Your task to perform on an android device: Open Yahoo.com Image 0: 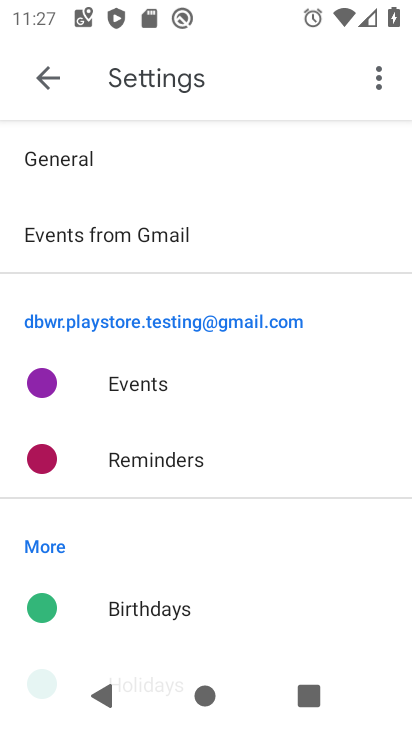
Step 0: press home button
Your task to perform on an android device: Open Yahoo.com Image 1: 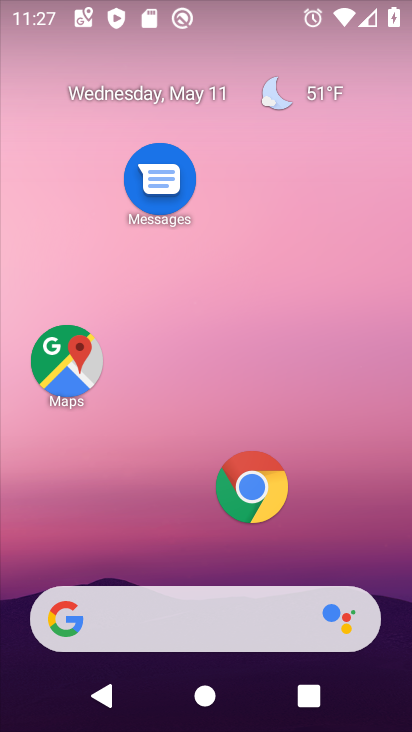
Step 1: click (243, 488)
Your task to perform on an android device: Open Yahoo.com Image 2: 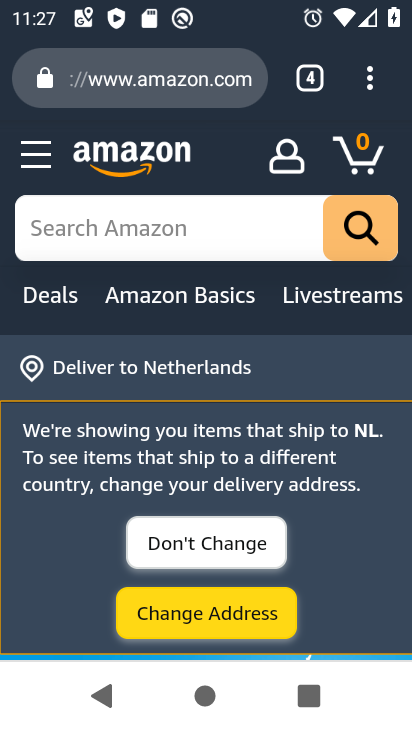
Step 2: click (309, 85)
Your task to perform on an android device: Open Yahoo.com Image 3: 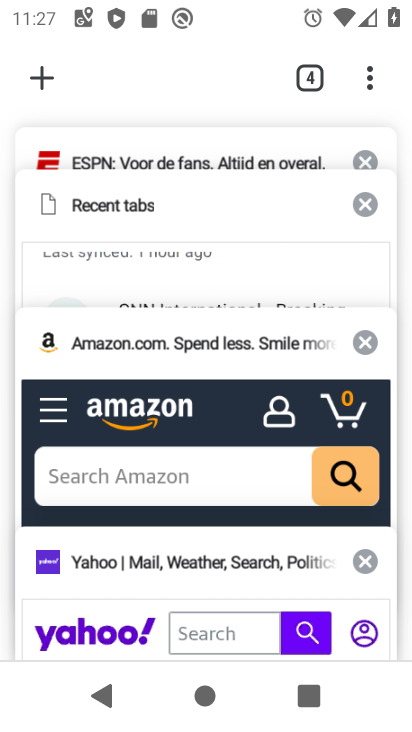
Step 3: click (150, 581)
Your task to perform on an android device: Open Yahoo.com Image 4: 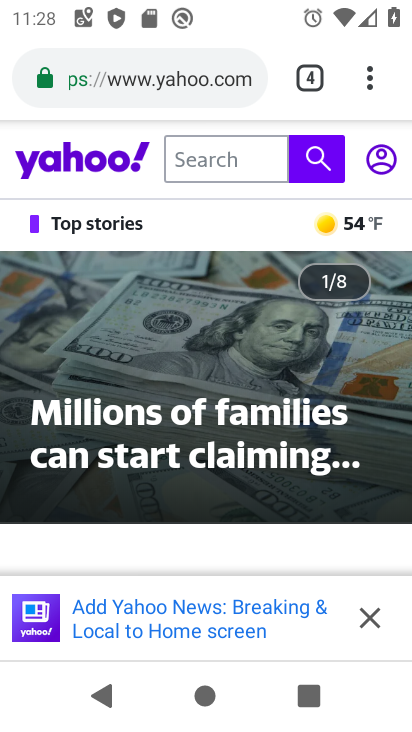
Step 4: task complete